Your task to perform on an android device: turn off priority inbox in the gmail app Image 0: 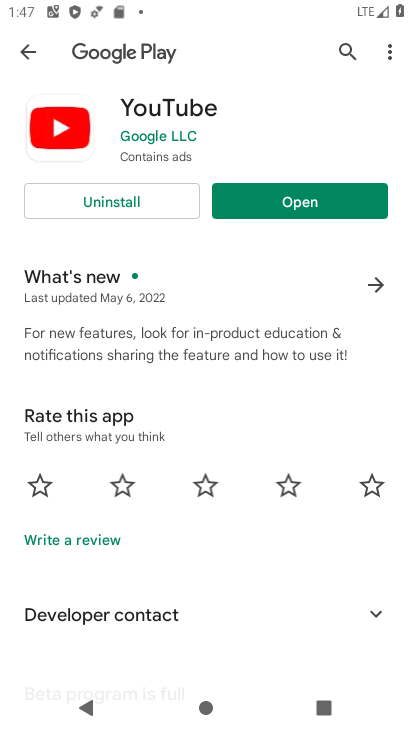
Step 0: press home button
Your task to perform on an android device: turn off priority inbox in the gmail app Image 1: 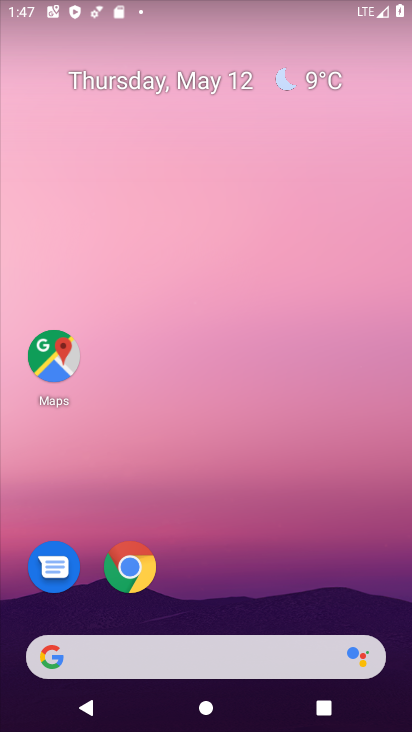
Step 1: drag from (248, 401) to (335, 105)
Your task to perform on an android device: turn off priority inbox in the gmail app Image 2: 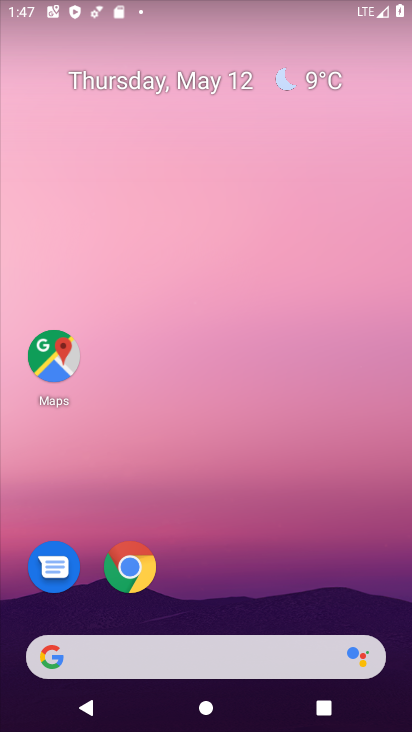
Step 2: drag from (212, 601) to (316, 191)
Your task to perform on an android device: turn off priority inbox in the gmail app Image 3: 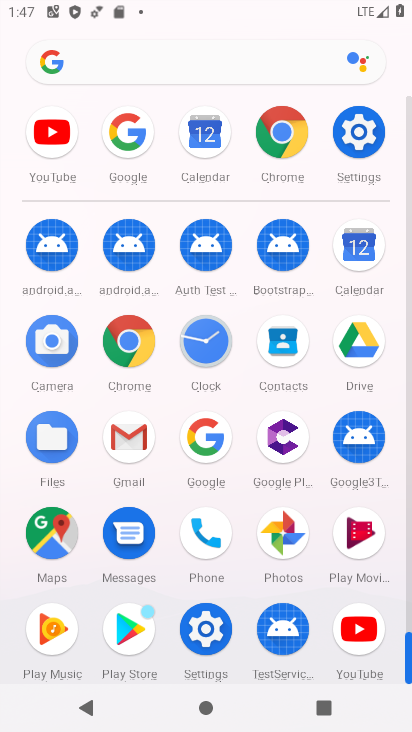
Step 3: click (140, 452)
Your task to perform on an android device: turn off priority inbox in the gmail app Image 4: 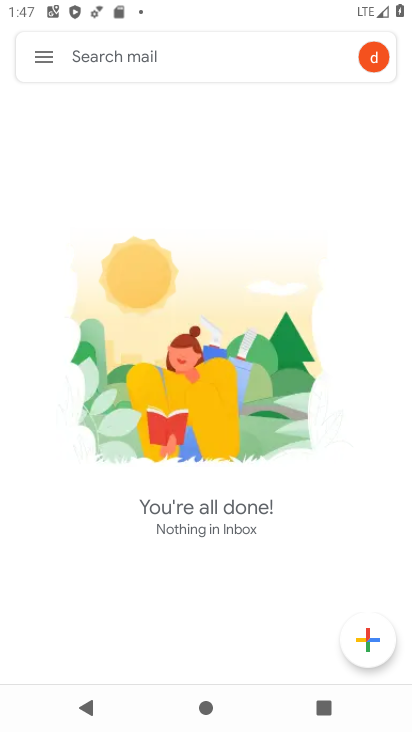
Step 4: click (45, 56)
Your task to perform on an android device: turn off priority inbox in the gmail app Image 5: 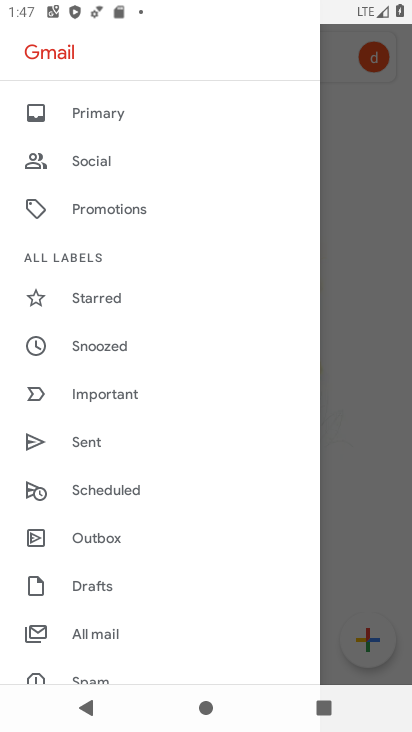
Step 5: drag from (135, 625) to (201, 211)
Your task to perform on an android device: turn off priority inbox in the gmail app Image 6: 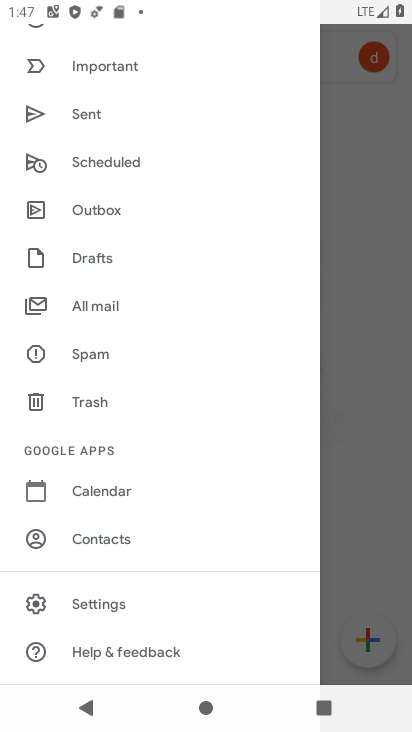
Step 6: click (88, 586)
Your task to perform on an android device: turn off priority inbox in the gmail app Image 7: 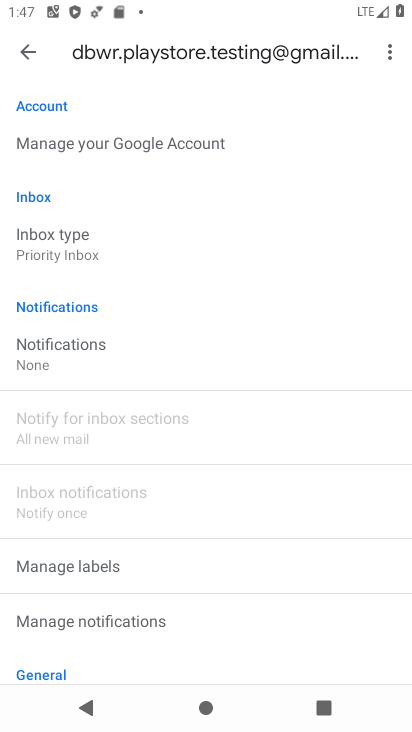
Step 7: click (66, 244)
Your task to perform on an android device: turn off priority inbox in the gmail app Image 8: 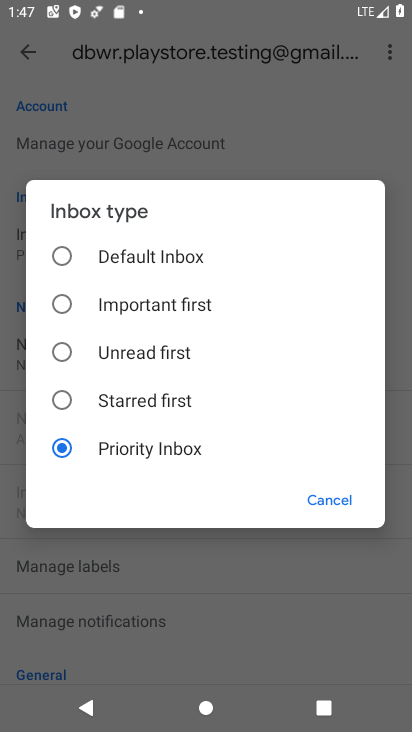
Step 8: click (62, 257)
Your task to perform on an android device: turn off priority inbox in the gmail app Image 9: 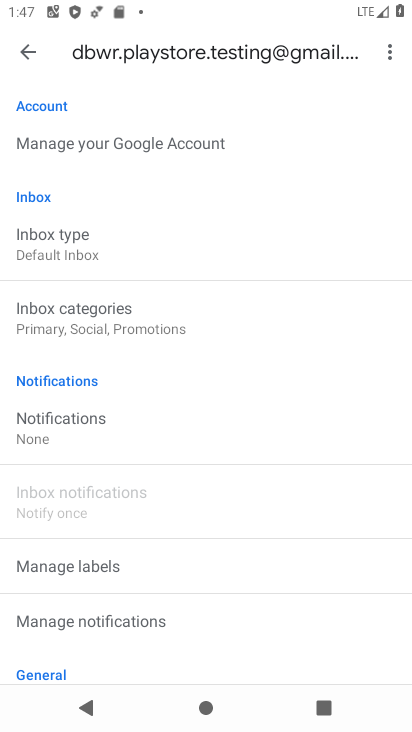
Step 9: task complete